Your task to perform on an android device: stop showing notifications on the lock screen Image 0: 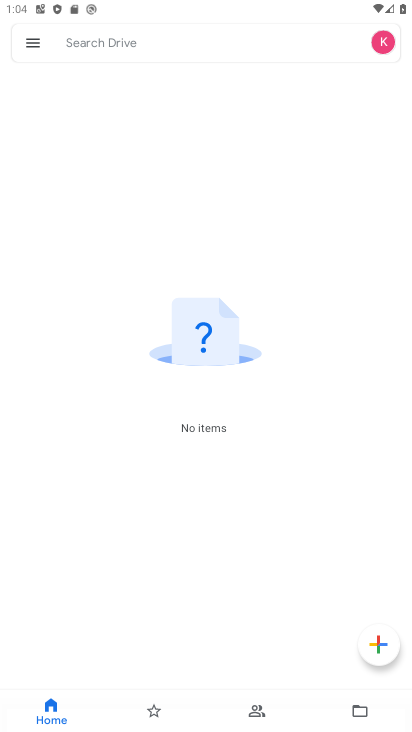
Step 0: press home button
Your task to perform on an android device: stop showing notifications on the lock screen Image 1: 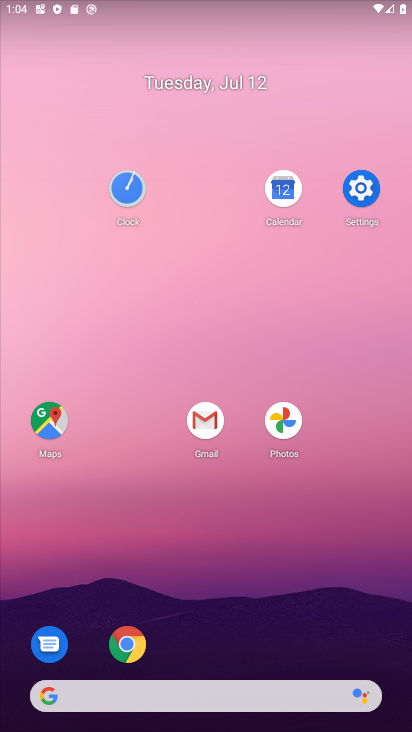
Step 1: click (364, 186)
Your task to perform on an android device: stop showing notifications on the lock screen Image 2: 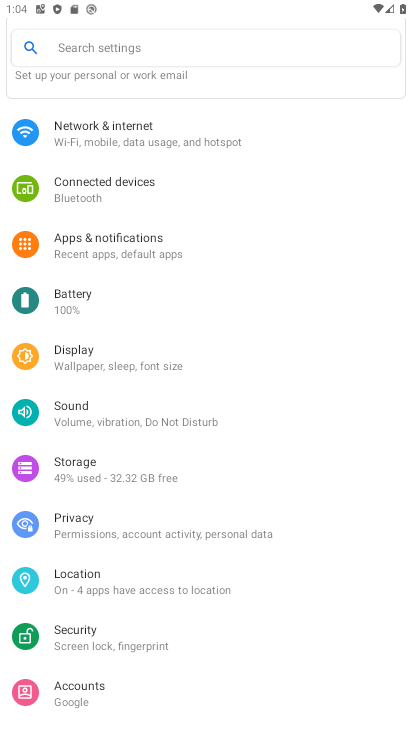
Step 2: click (146, 261)
Your task to perform on an android device: stop showing notifications on the lock screen Image 3: 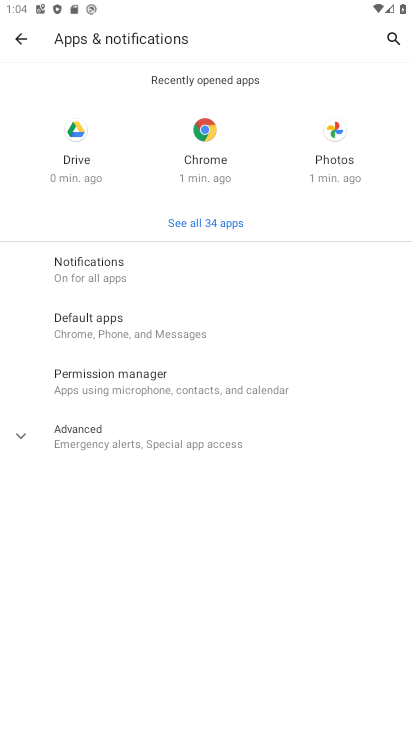
Step 3: click (127, 285)
Your task to perform on an android device: stop showing notifications on the lock screen Image 4: 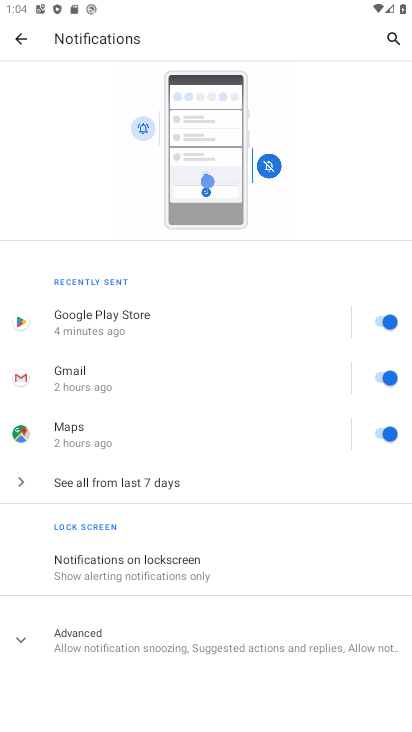
Step 4: click (209, 569)
Your task to perform on an android device: stop showing notifications on the lock screen Image 5: 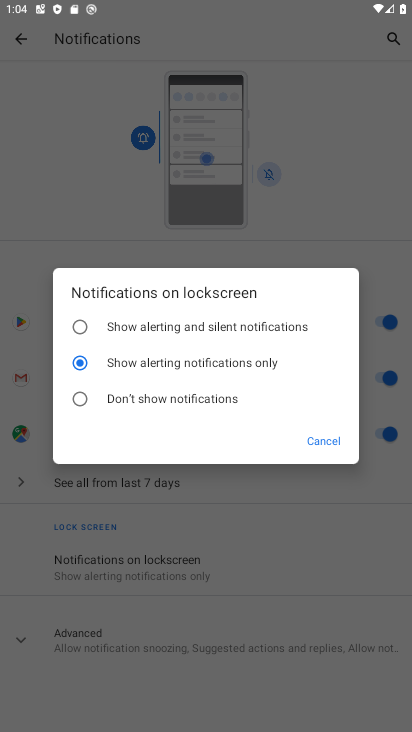
Step 5: click (177, 403)
Your task to perform on an android device: stop showing notifications on the lock screen Image 6: 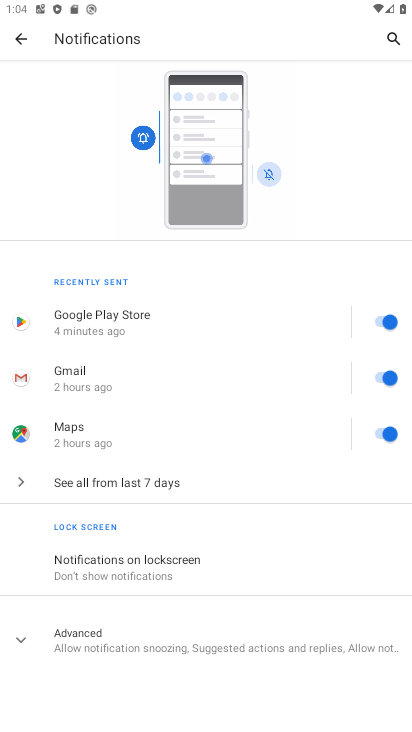
Step 6: task complete